Your task to perform on an android device: Open Google Chrome Image 0: 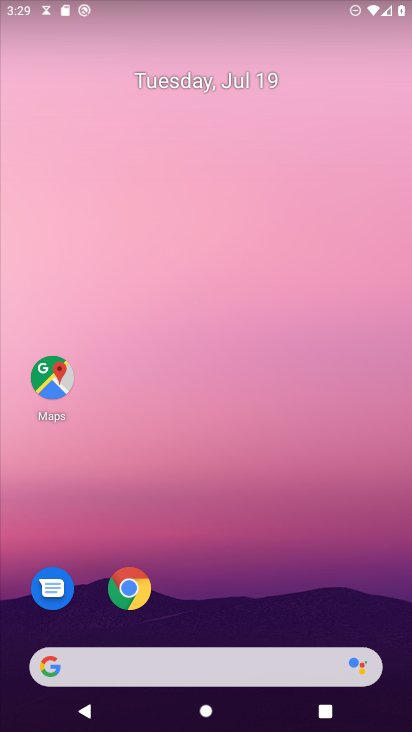
Step 0: click (134, 594)
Your task to perform on an android device: Open Google Chrome Image 1: 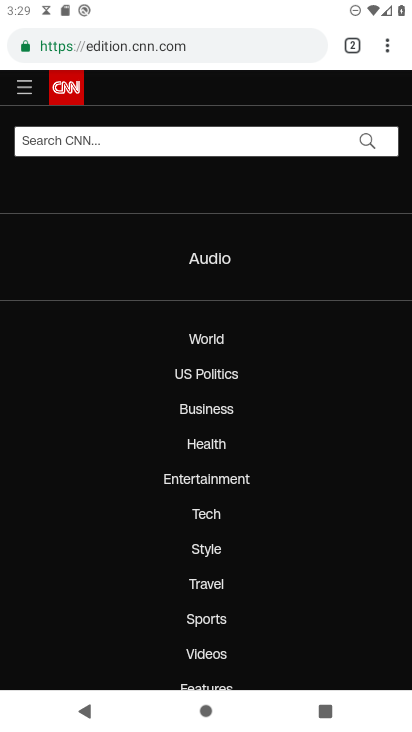
Step 1: task complete